Your task to perform on an android device: change keyboard looks Image 0: 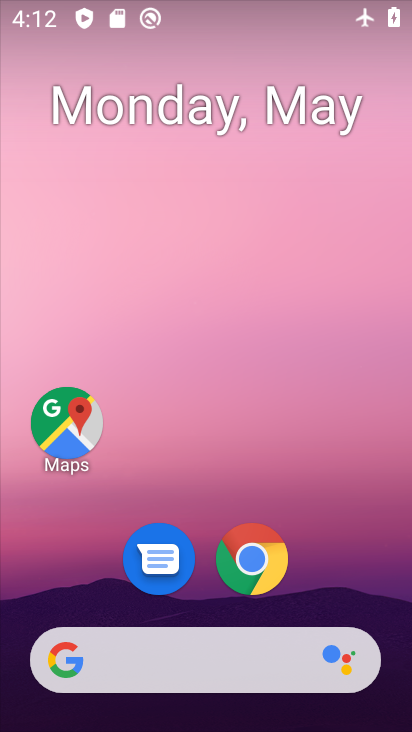
Step 0: drag from (262, 647) to (256, 4)
Your task to perform on an android device: change keyboard looks Image 1: 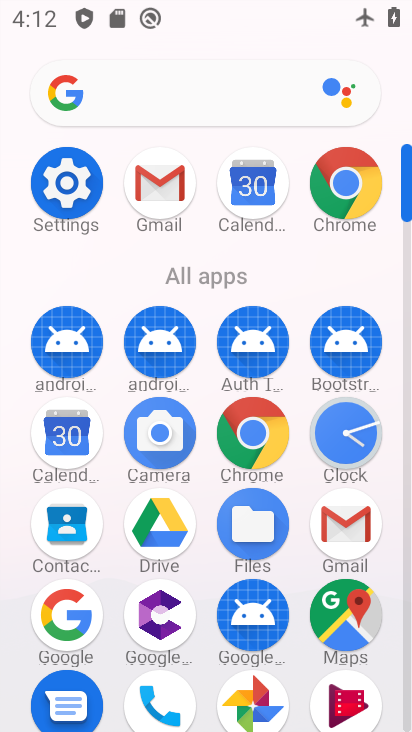
Step 1: click (69, 253)
Your task to perform on an android device: change keyboard looks Image 2: 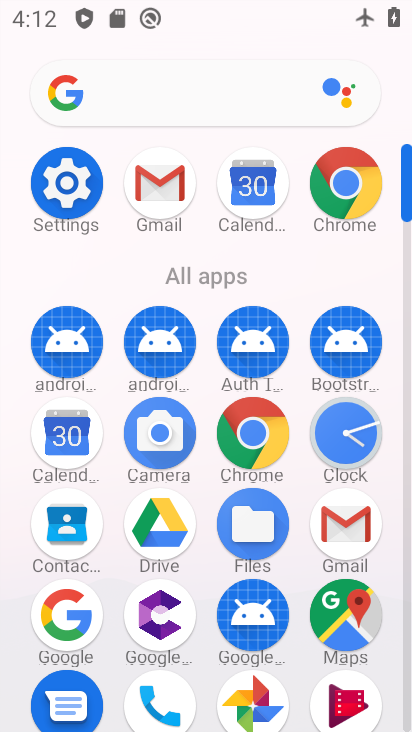
Step 2: click (75, 192)
Your task to perform on an android device: change keyboard looks Image 3: 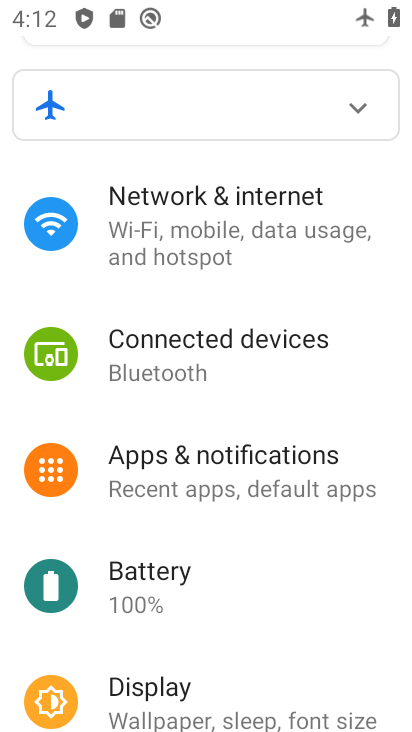
Step 3: drag from (257, 592) to (335, 8)
Your task to perform on an android device: change keyboard looks Image 4: 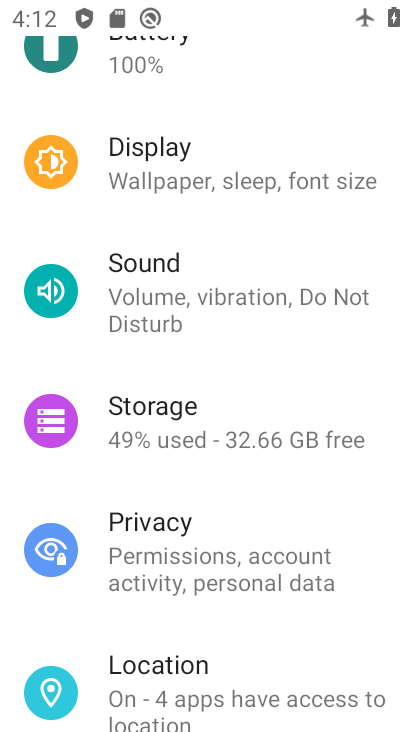
Step 4: drag from (277, 684) to (302, 91)
Your task to perform on an android device: change keyboard looks Image 5: 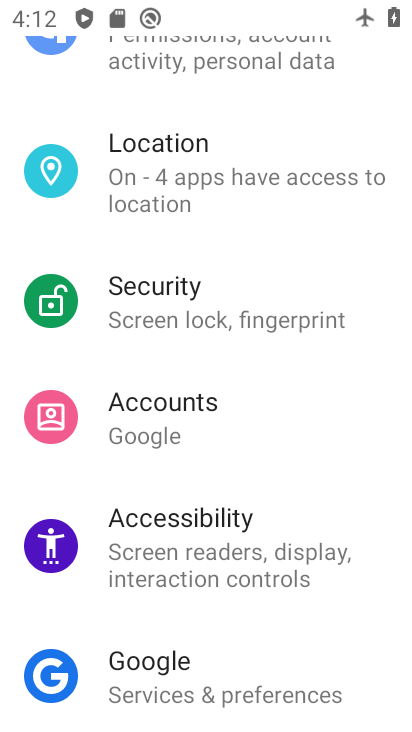
Step 5: click (152, 542)
Your task to perform on an android device: change keyboard looks Image 6: 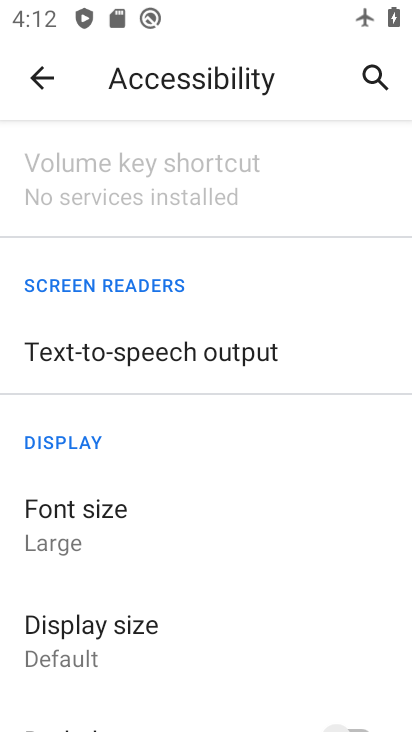
Step 6: press back button
Your task to perform on an android device: change keyboard looks Image 7: 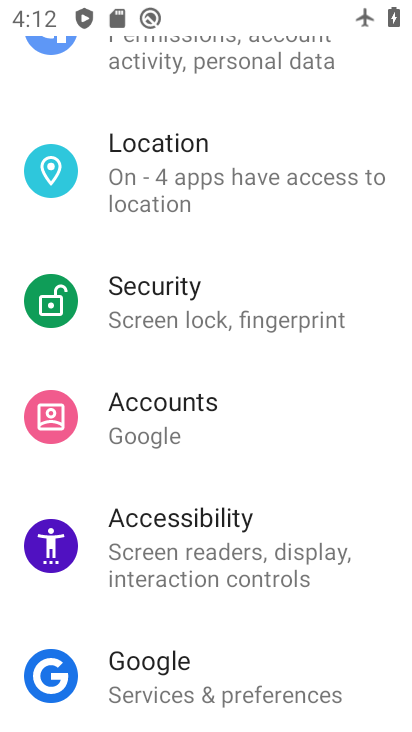
Step 7: drag from (300, 586) to (267, 140)
Your task to perform on an android device: change keyboard looks Image 8: 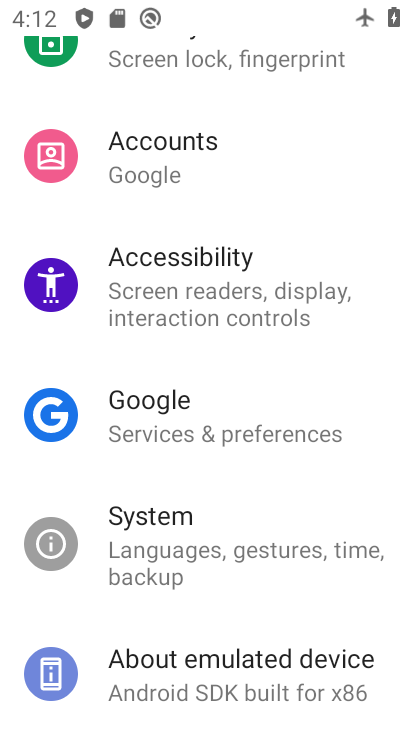
Step 8: click (236, 559)
Your task to perform on an android device: change keyboard looks Image 9: 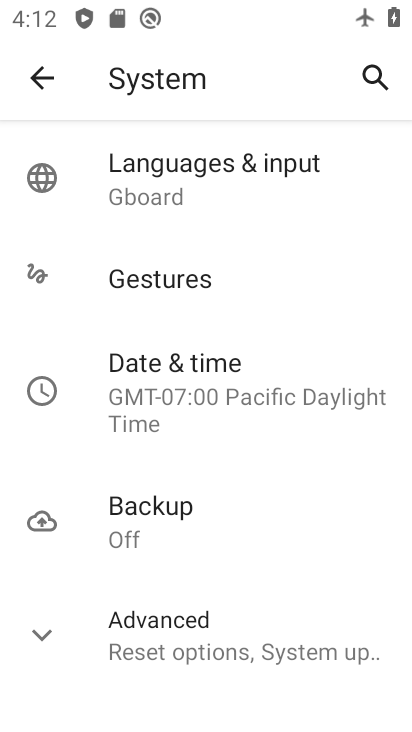
Step 9: drag from (252, 661) to (295, 263)
Your task to perform on an android device: change keyboard looks Image 10: 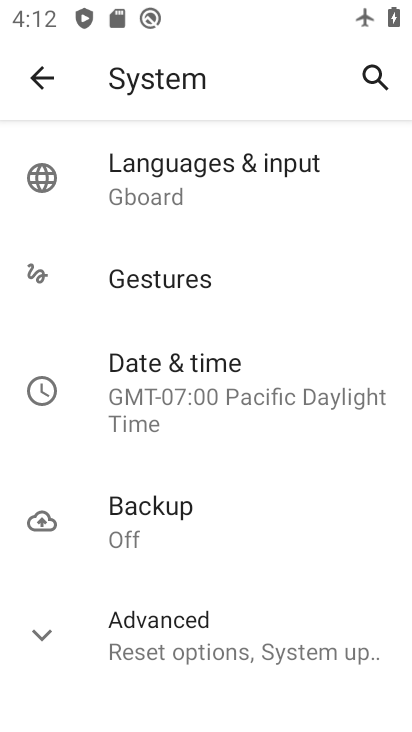
Step 10: click (273, 182)
Your task to perform on an android device: change keyboard looks Image 11: 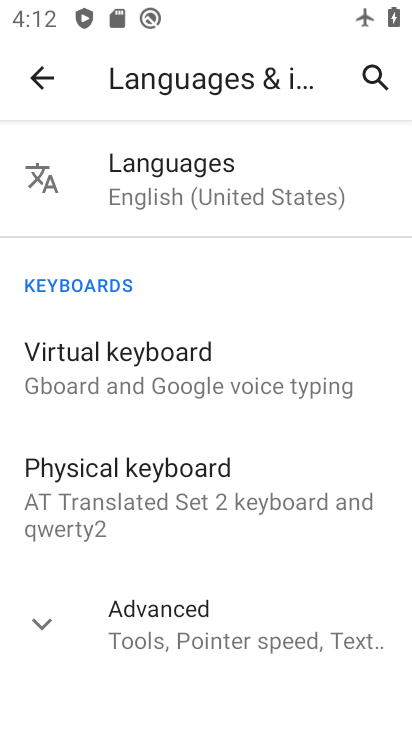
Step 11: click (261, 376)
Your task to perform on an android device: change keyboard looks Image 12: 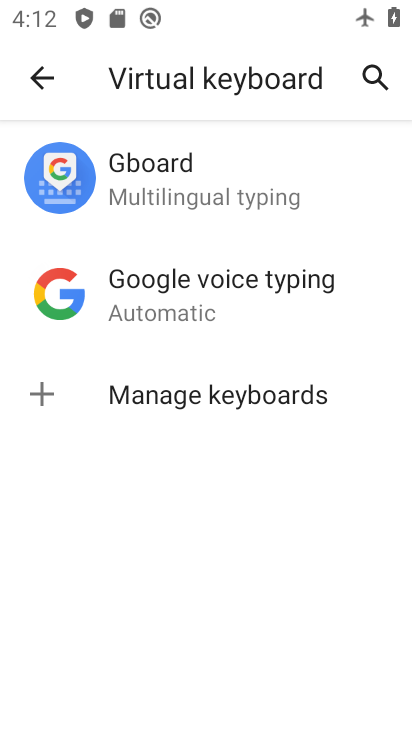
Step 12: click (253, 200)
Your task to perform on an android device: change keyboard looks Image 13: 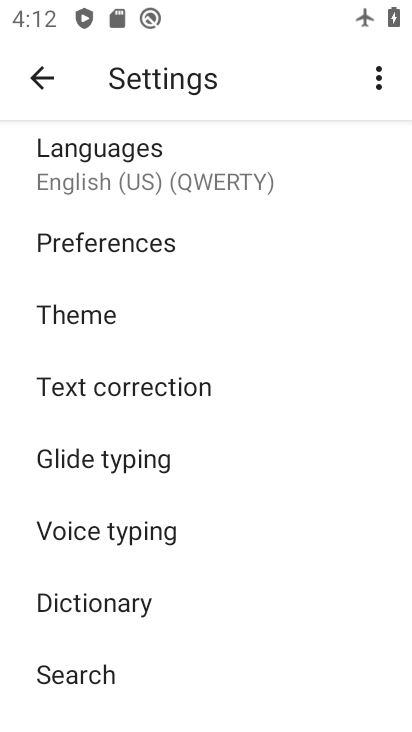
Step 13: click (61, 305)
Your task to perform on an android device: change keyboard looks Image 14: 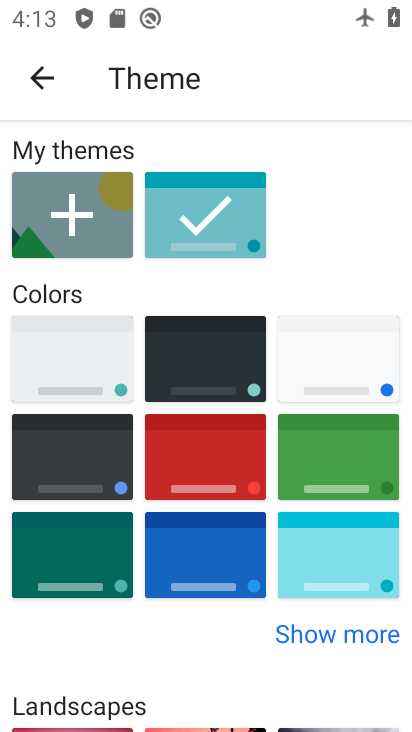
Step 14: click (341, 472)
Your task to perform on an android device: change keyboard looks Image 15: 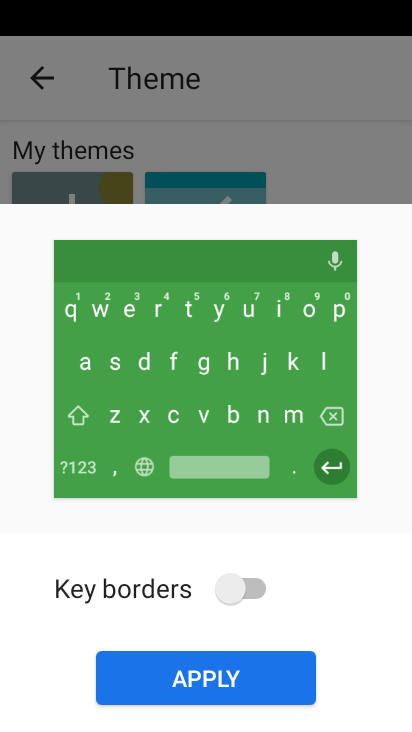
Step 15: click (254, 671)
Your task to perform on an android device: change keyboard looks Image 16: 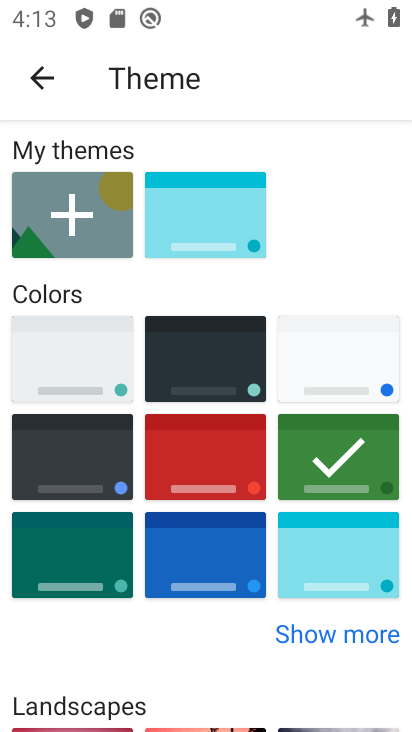
Step 16: task complete